Your task to perform on an android device: Open eBay Image 0: 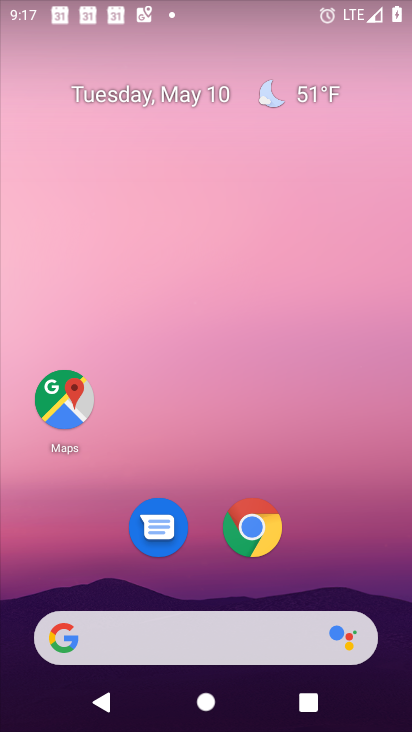
Step 0: click (238, 541)
Your task to perform on an android device: Open eBay Image 1: 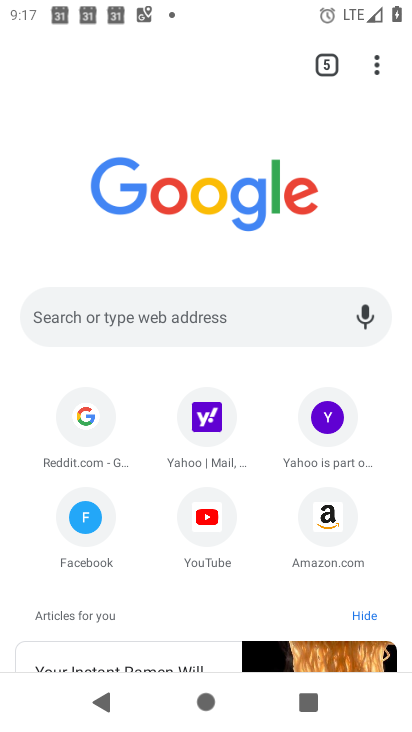
Step 1: click (209, 322)
Your task to perform on an android device: Open eBay Image 2: 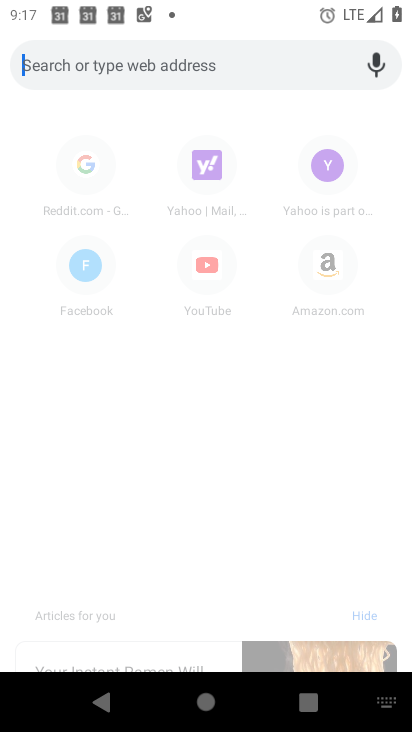
Step 2: type "ebay"
Your task to perform on an android device: Open eBay Image 3: 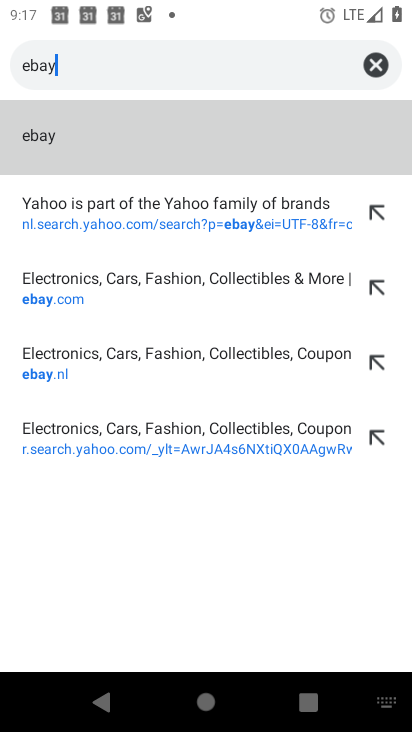
Step 3: type ""
Your task to perform on an android device: Open eBay Image 4: 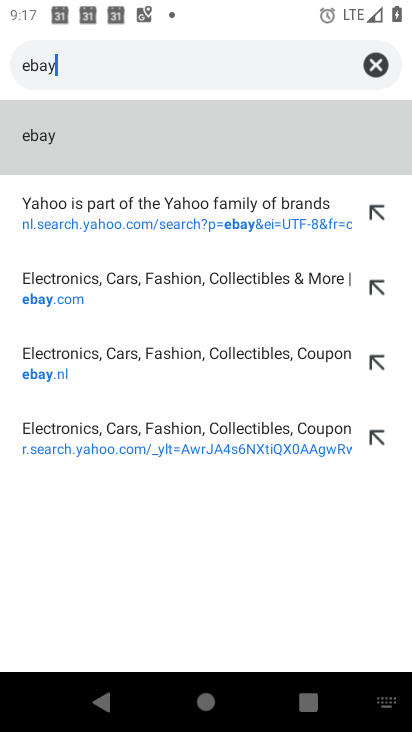
Step 4: click (95, 291)
Your task to perform on an android device: Open eBay Image 5: 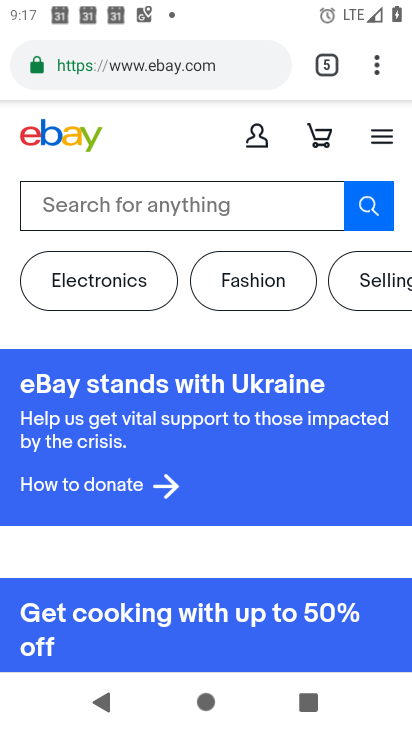
Step 5: task complete